Your task to perform on an android device: Search for seafood restaurants on Google Maps Image 0: 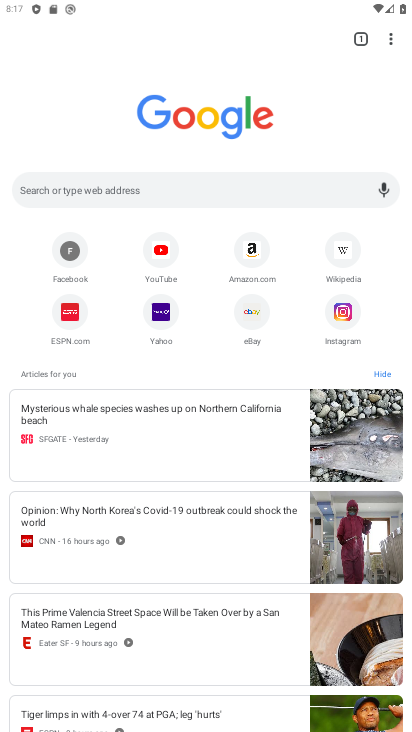
Step 0: press home button
Your task to perform on an android device: Search for seafood restaurants on Google Maps Image 1: 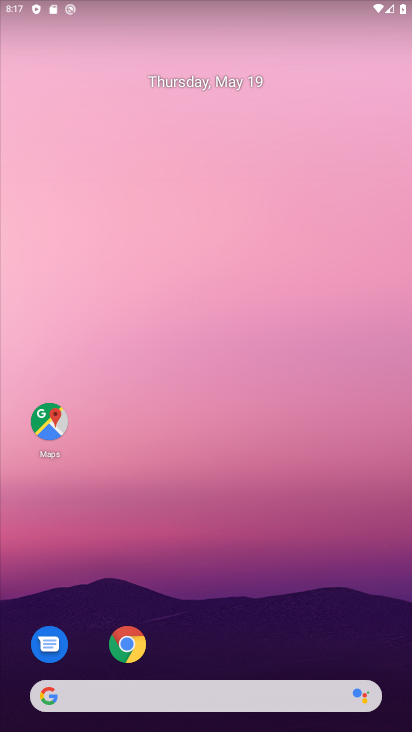
Step 1: drag from (340, 580) to (322, 226)
Your task to perform on an android device: Search for seafood restaurants on Google Maps Image 2: 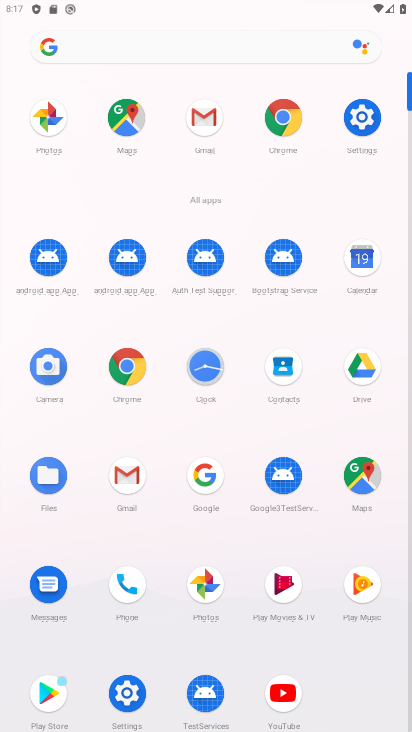
Step 2: click (213, 480)
Your task to perform on an android device: Search for seafood restaurants on Google Maps Image 3: 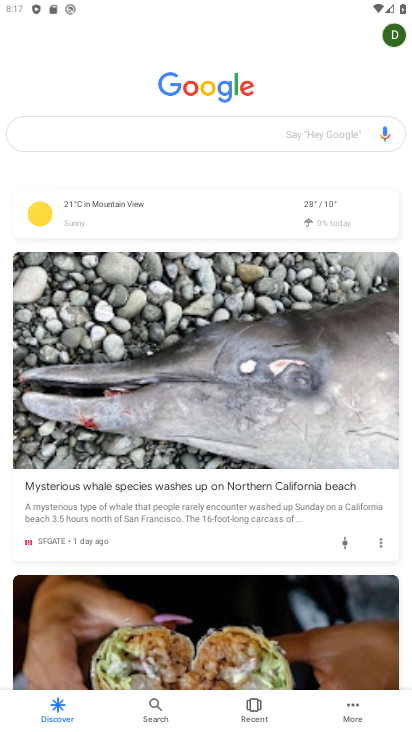
Step 3: press home button
Your task to perform on an android device: Search for seafood restaurants on Google Maps Image 4: 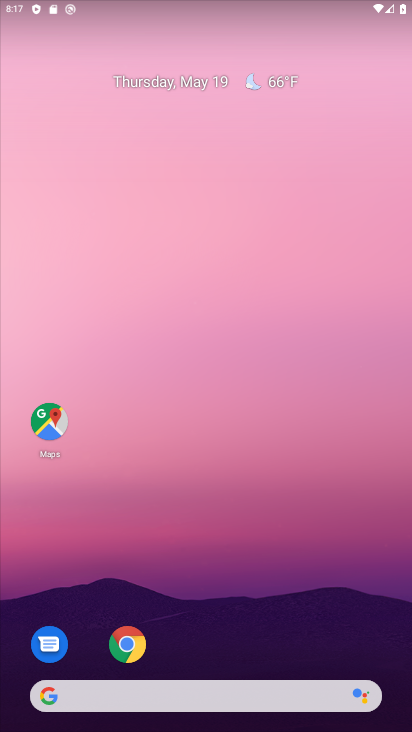
Step 4: click (55, 422)
Your task to perform on an android device: Search for seafood restaurants on Google Maps Image 5: 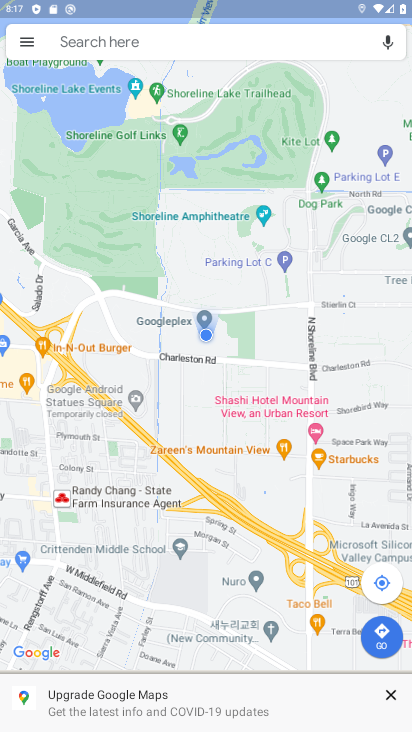
Step 5: click (122, 41)
Your task to perform on an android device: Search for seafood restaurants on Google Maps Image 6: 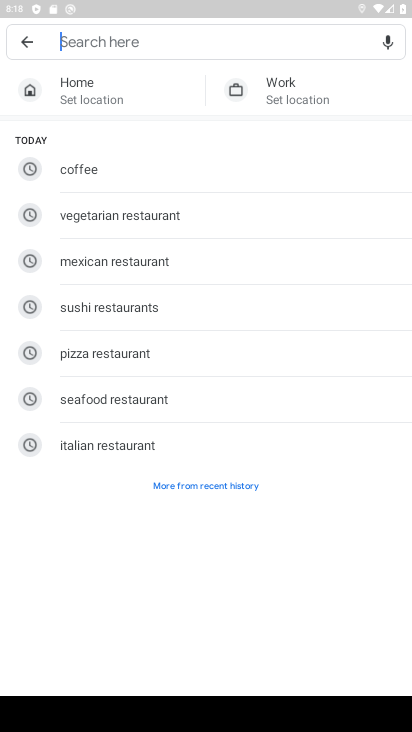
Step 6: click (82, 403)
Your task to perform on an android device: Search for seafood restaurants on Google Maps Image 7: 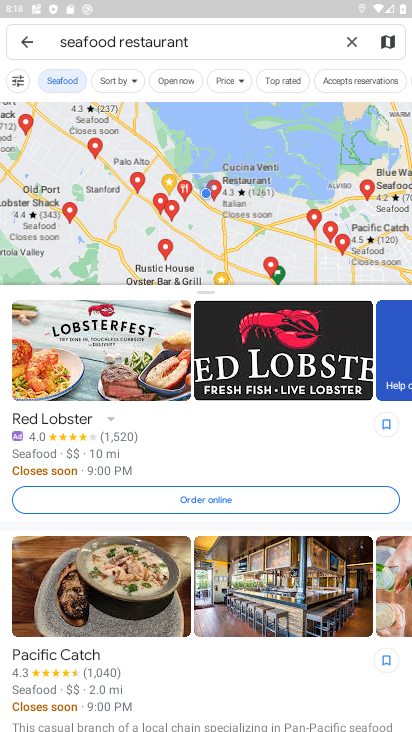
Step 7: task complete